Your task to perform on an android device: Open location settings Image 0: 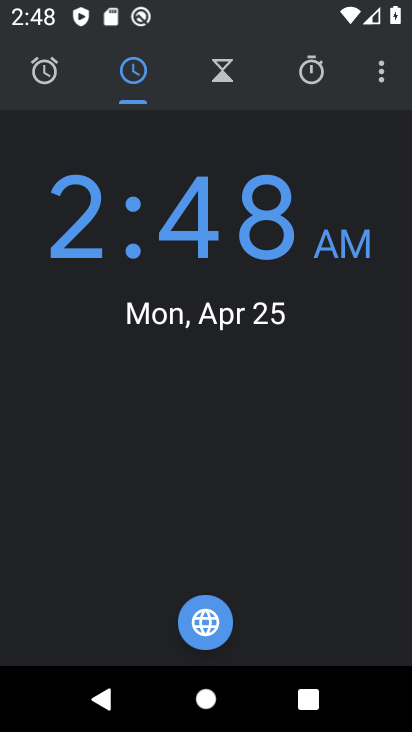
Step 0: press home button
Your task to perform on an android device: Open location settings Image 1: 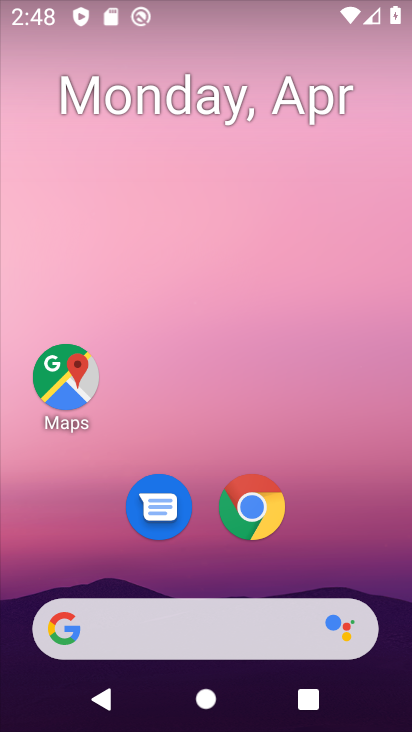
Step 1: drag from (385, 567) to (275, 136)
Your task to perform on an android device: Open location settings Image 2: 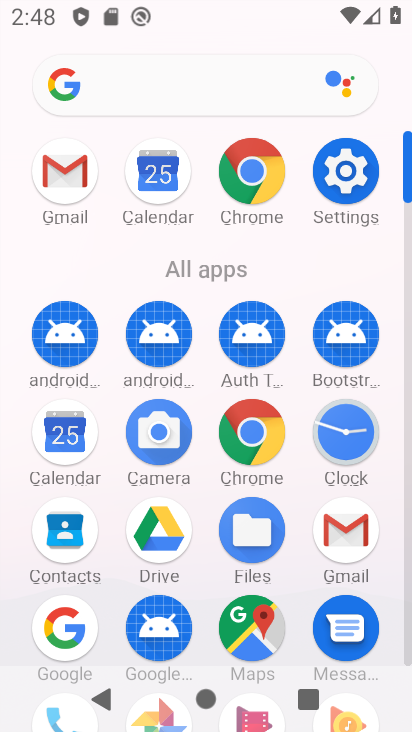
Step 2: click (339, 172)
Your task to perform on an android device: Open location settings Image 3: 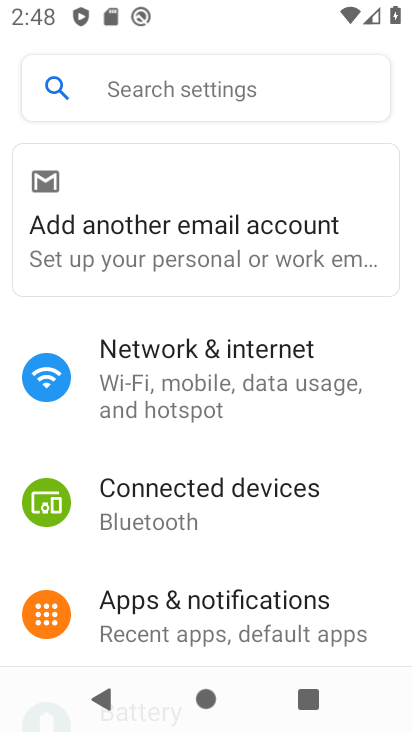
Step 3: drag from (358, 553) to (301, 148)
Your task to perform on an android device: Open location settings Image 4: 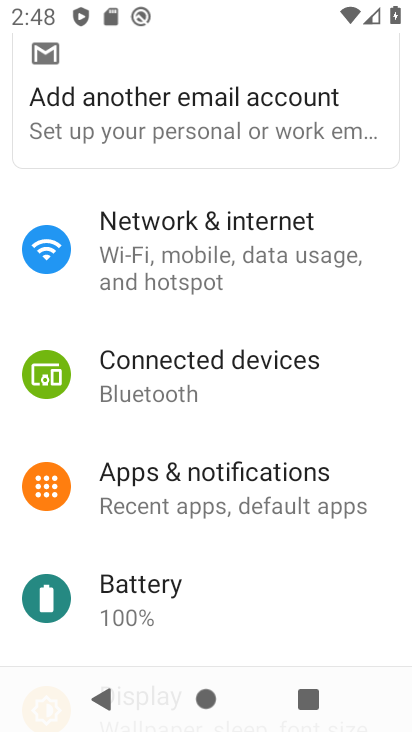
Step 4: drag from (332, 548) to (252, 129)
Your task to perform on an android device: Open location settings Image 5: 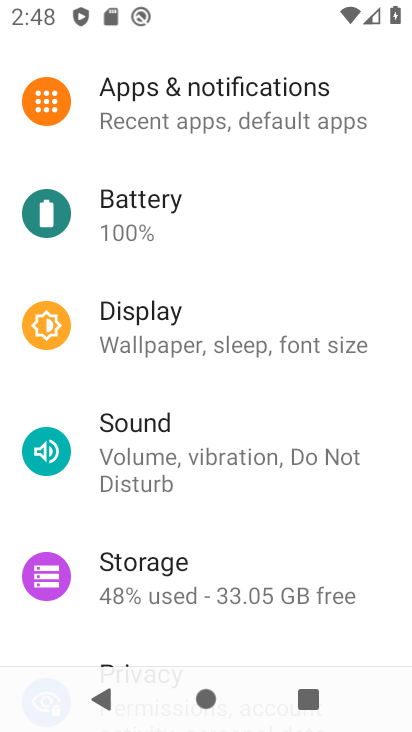
Step 5: drag from (288, 514) to (258, 147)
Your task to perform on an android device: Open location settings Image 6: 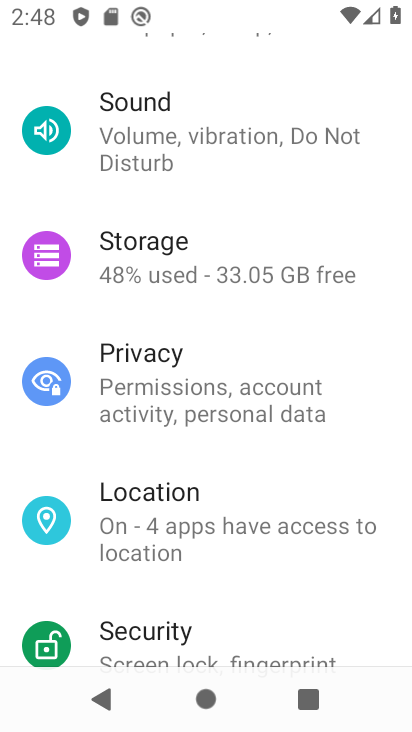
Step 6: click (301, 509)
Your task to perform on an android device: Open location settings Image 7: 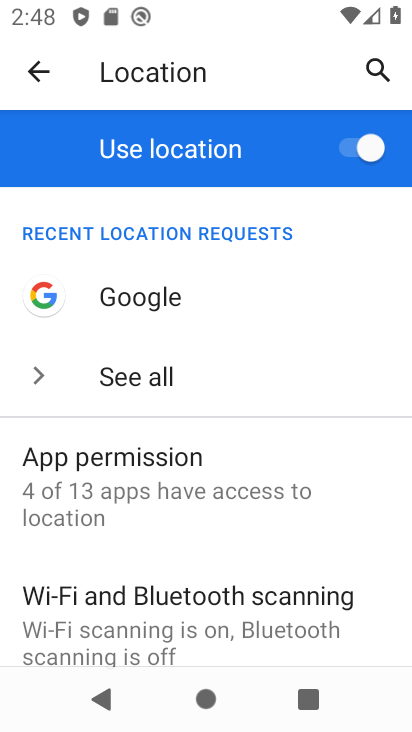
Step 7: task complete